Your task to perform on an android device: toggle improve location accuracy Image 0: 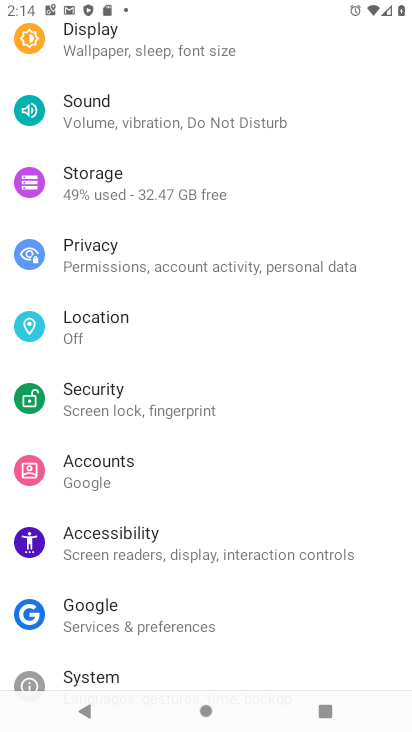
Step 0: press home button
Your task to perform on an android device: toggle improve location accuracy Image 1: 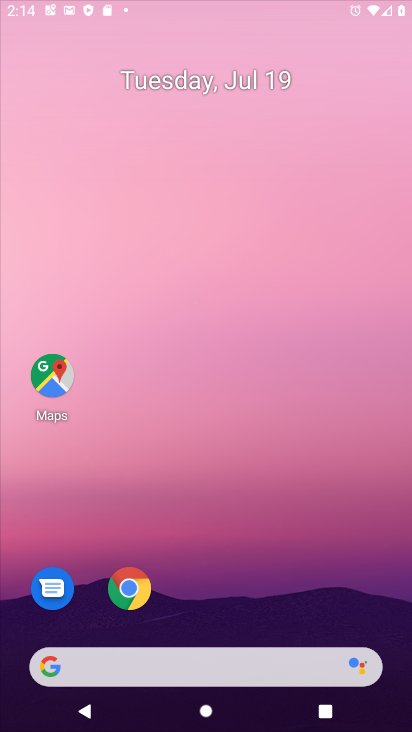
Step 1: drag from (371, 631) to (163, 38)
Your task to perform on an android device: toggle improve location accuracy Image 2: 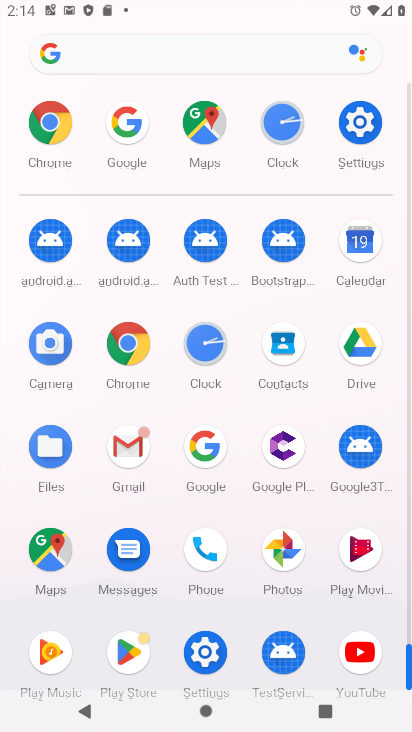
Step 2: click (359, 117)
Your task to perform on an android device: toggle improve location accuracy Image 3: 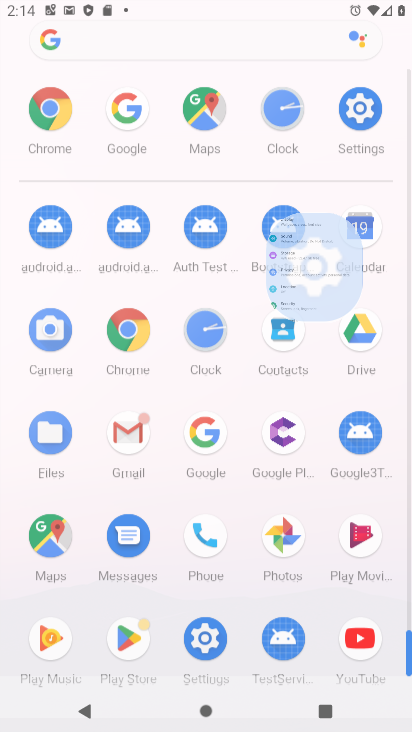
Step 3: click (359, 117)
Your task to perform on an android device: toggle improve location accuracy Image 4: 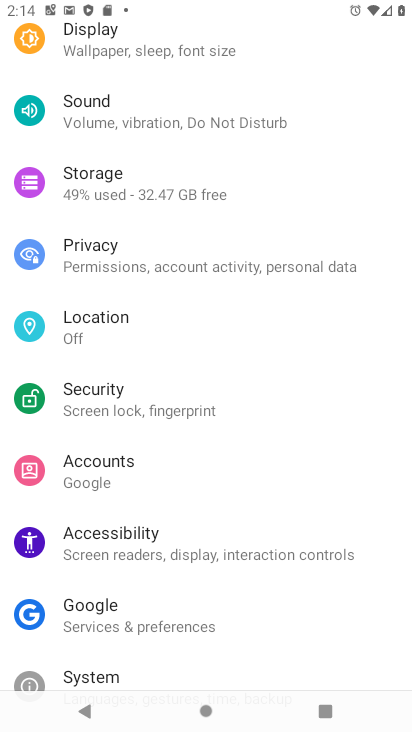
Step 4: click (141, 344)
Your task to perform on an android device: toggle improve location accuracy Image 5: 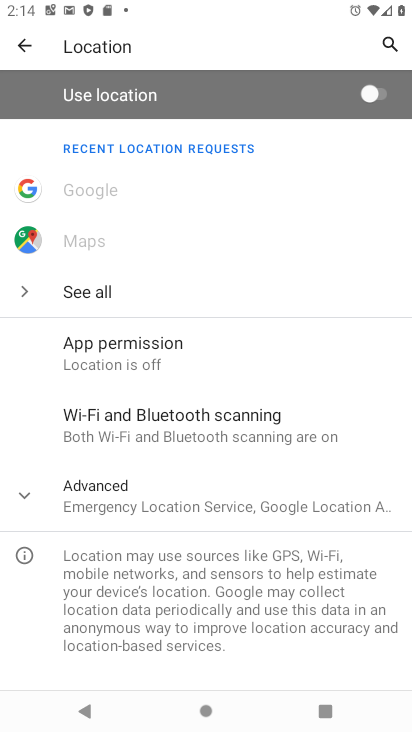
Step 5: click (142, 488)
Your task to perform on an android device: toggle improve location accuracy Image 6: 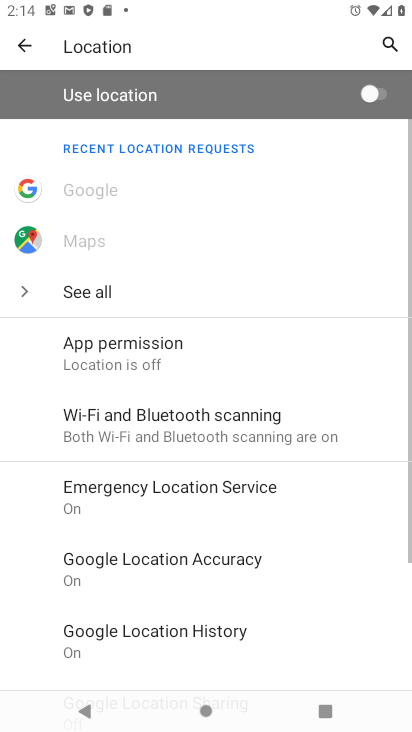
Step 6: click (122, 576)
Your task to perform on an android device: toggle improve location accuracy Image 7: 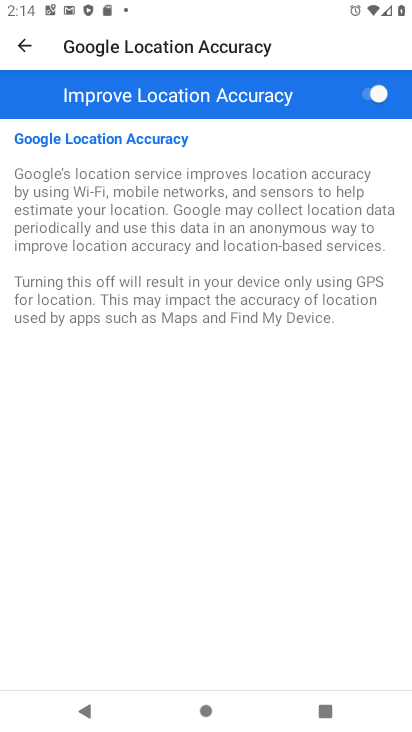
Step 7: click (382, 110)
Your task to perform on an android device: toggle improve location accuracy Image 8: 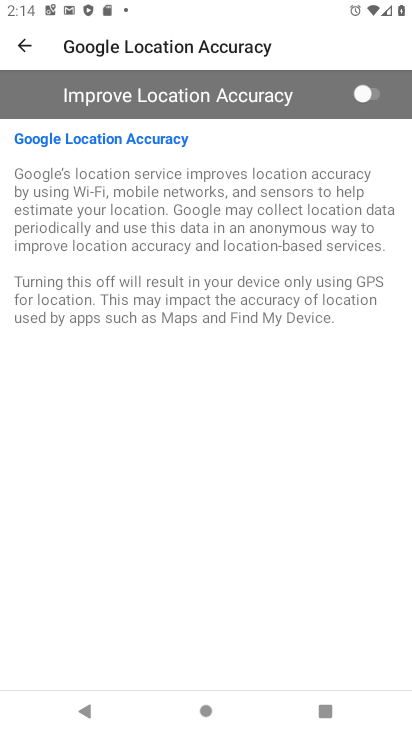
Step 8: task complete